Your task to perform on an android device: Add "duracell triple a" to the cart on target.com Image 0: 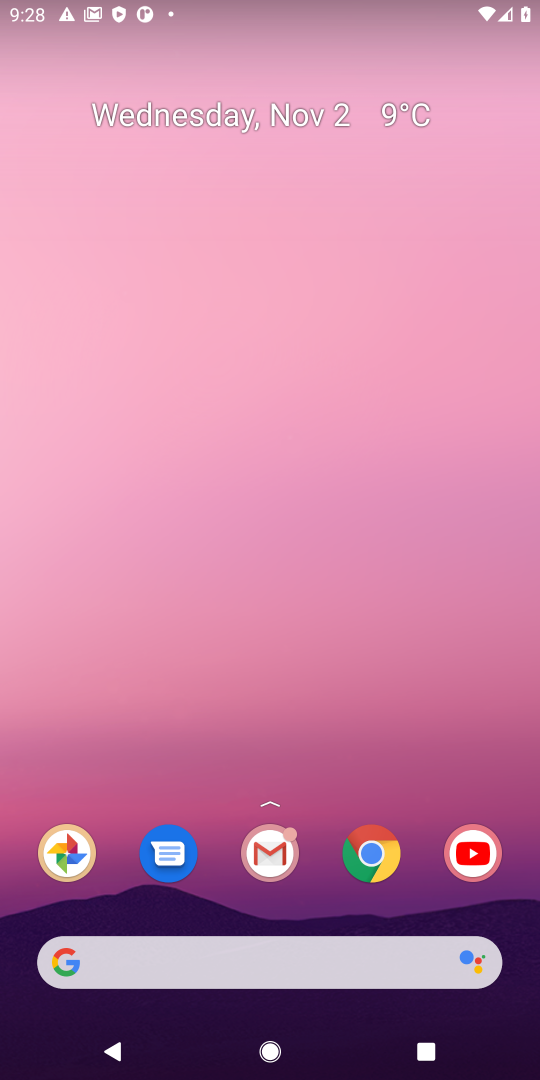
Step 0: click (379, 850)
Your task to perform on an android device: Add "duracell triple a" to the cart on target.com Image 1: 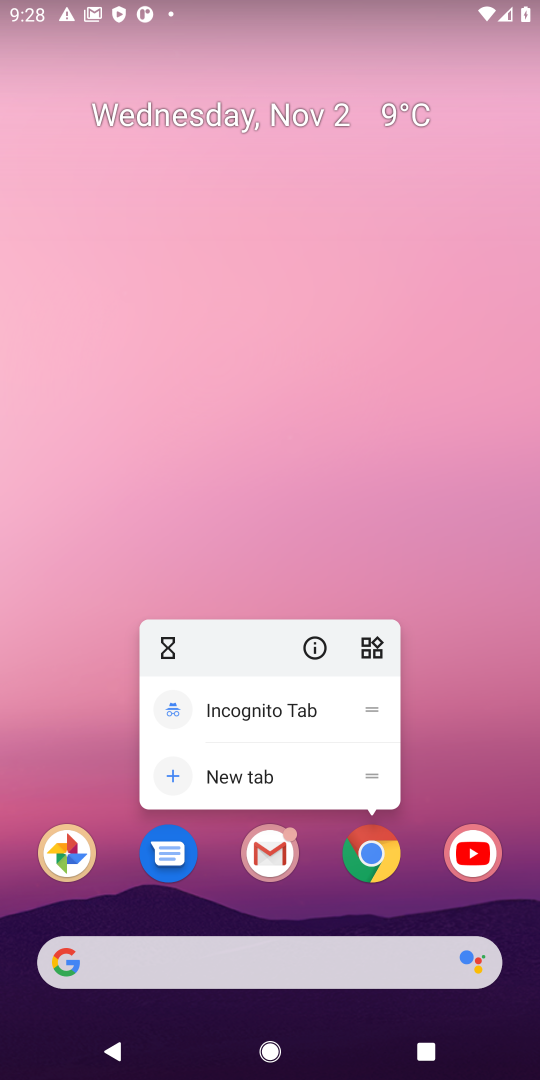
Step 1: click (367, 857)
Your task to perform on an android device: Add "duracell triple a" to the cart on target.com Image 2: 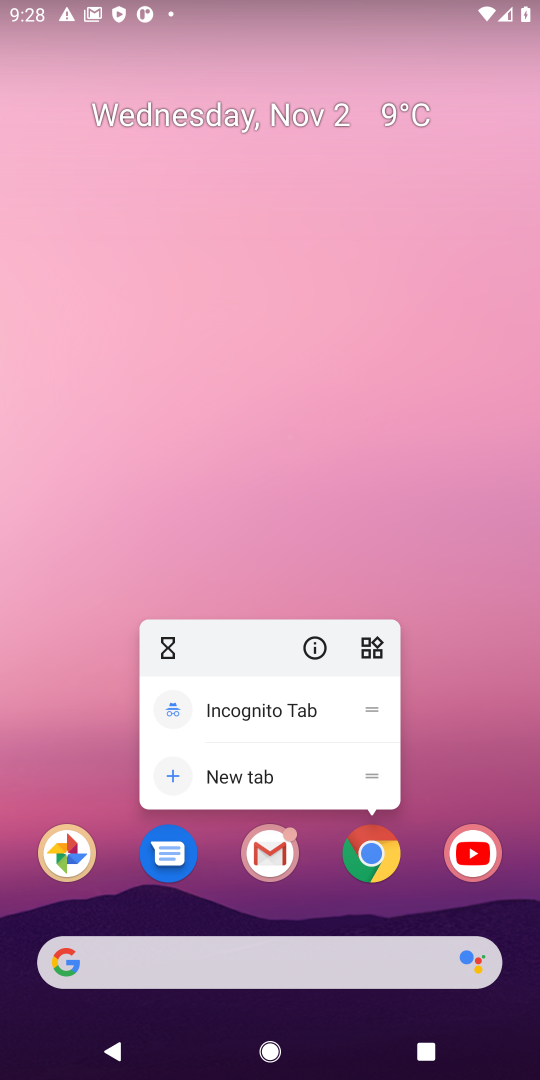
Step 2: click (369, 855)
Your task to perform on an android device: Add "duracell triple a" to the cart on target.com Image 3: 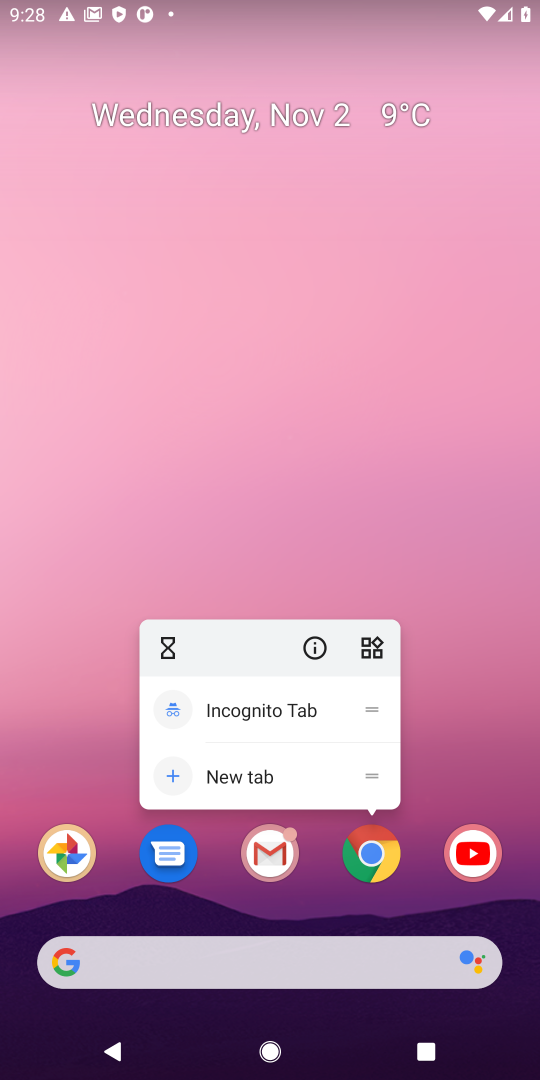
Step 3: click (369, 855)
Your task to perform on an android device: Add "duracell triple a" to the cart on target.com Image 4: 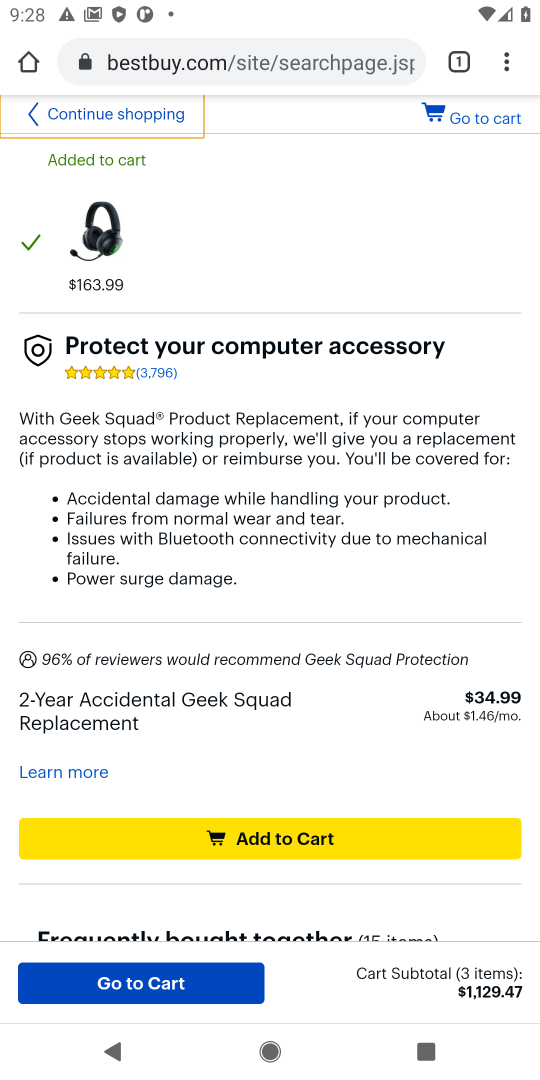
Step 4: click (307, 64)
Your task to perform on an android device: Add "duracell triple a" to the cart on target.com Image 5: 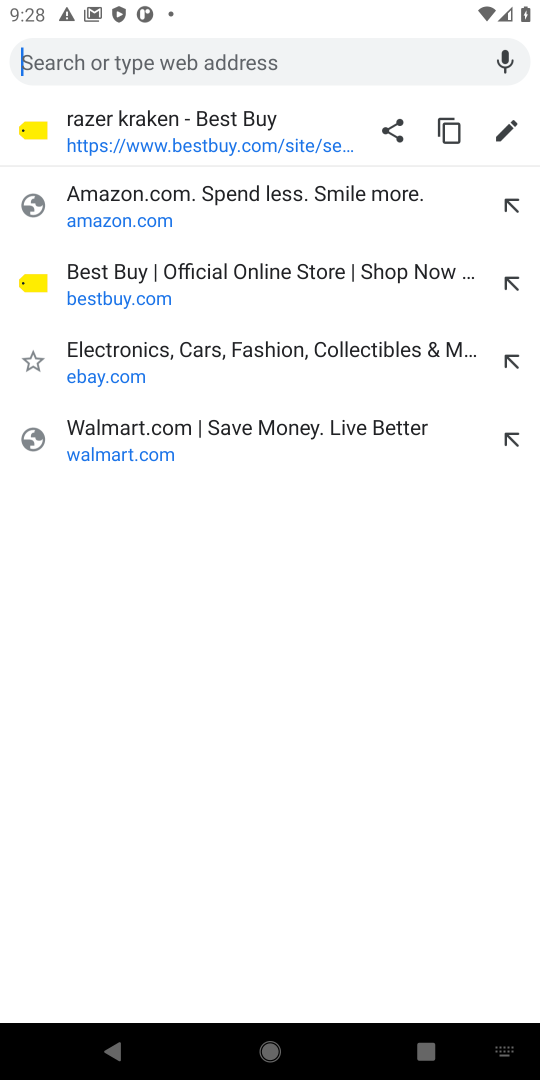
Step 5: type "target.com"
Your task to perform on an android device: Add "duracell triple a" to the cart on target.com Image 6: 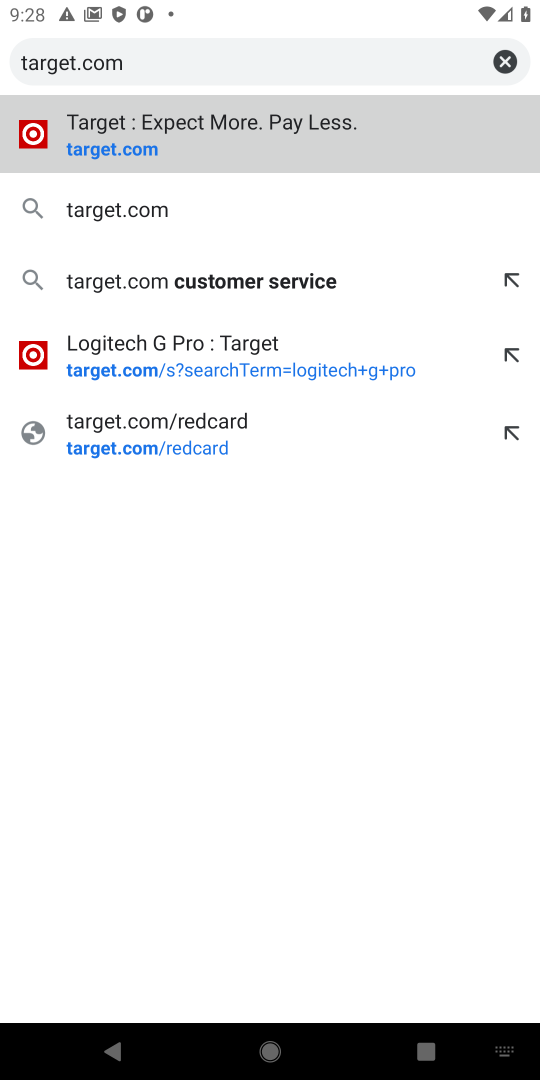
Step 6: press enter
Your task to perform on an android device: Add "duracell triple a" to the cart on target.com Image 7: 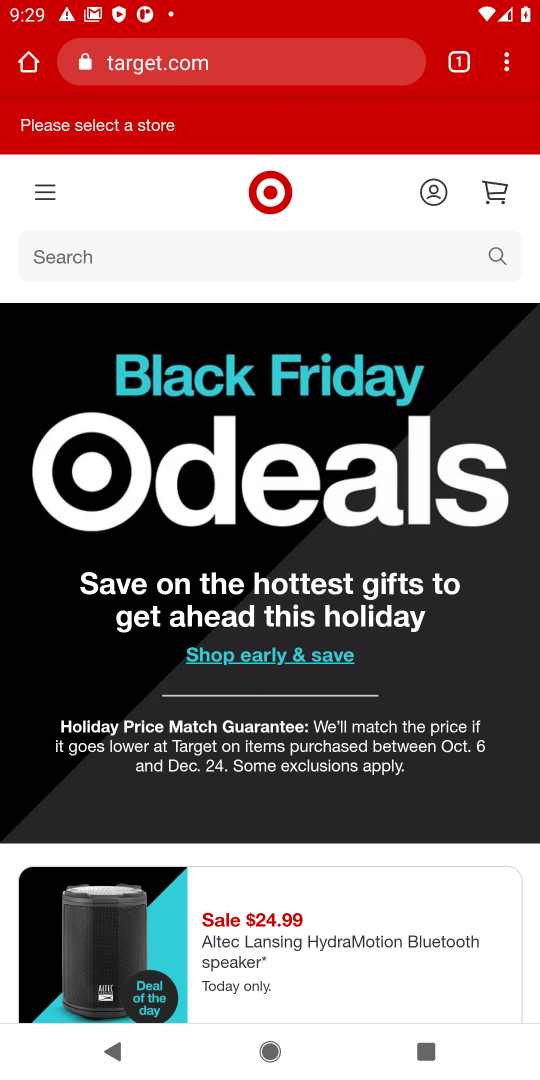
Step 7: click (102, 251)
Your task to perform on an android device: Add "duracell triple a" to the cart on target.com Image 8: 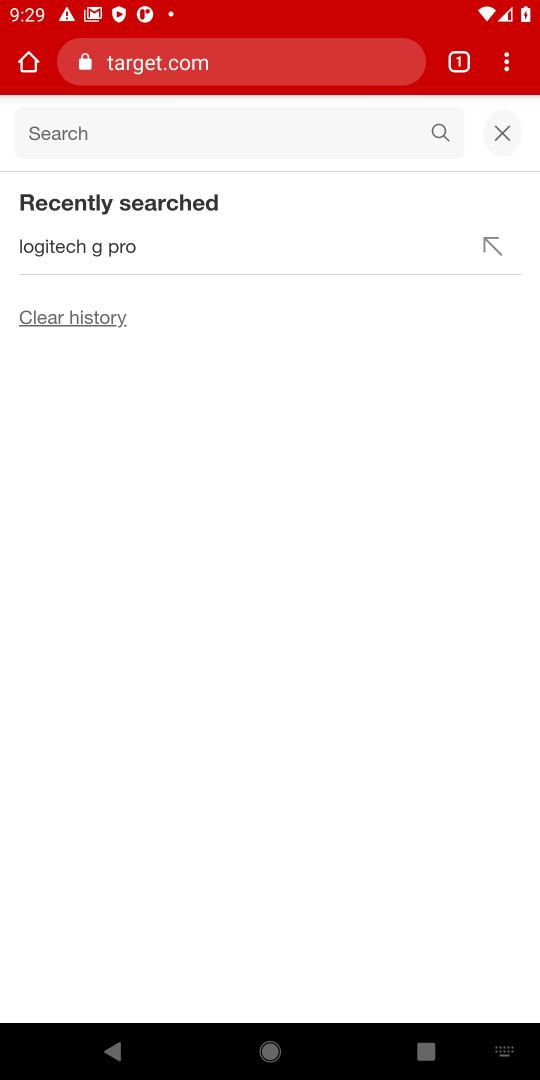
Step 8: type "duracell triple a"
Your task to perform on an android device: Add "duracell triple a" to the cart on target.com Image 9: 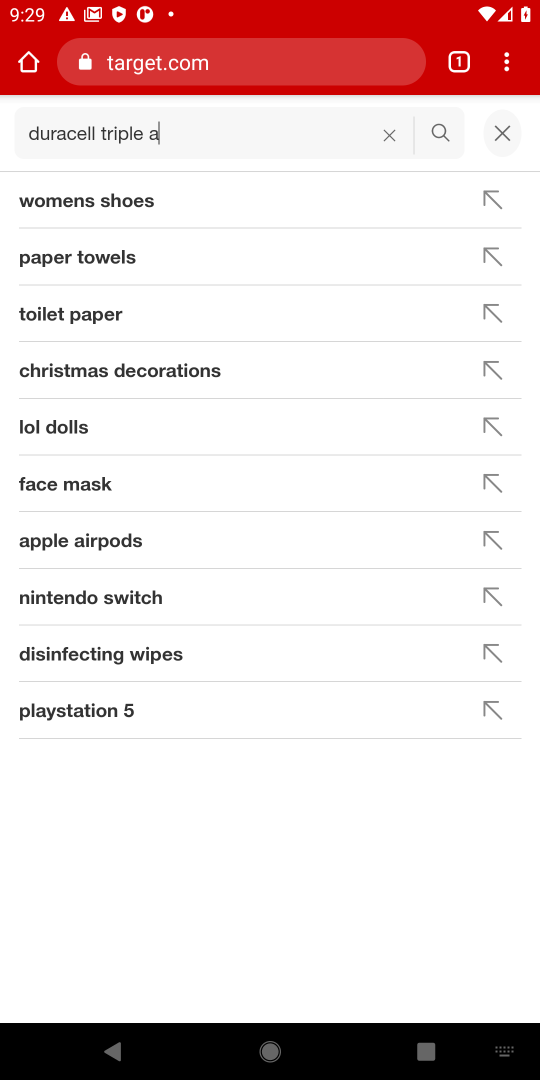
Step 9: press enter
Your task to perform on an android device: Add "duracell triple a" to the cart on target.com Image 10: 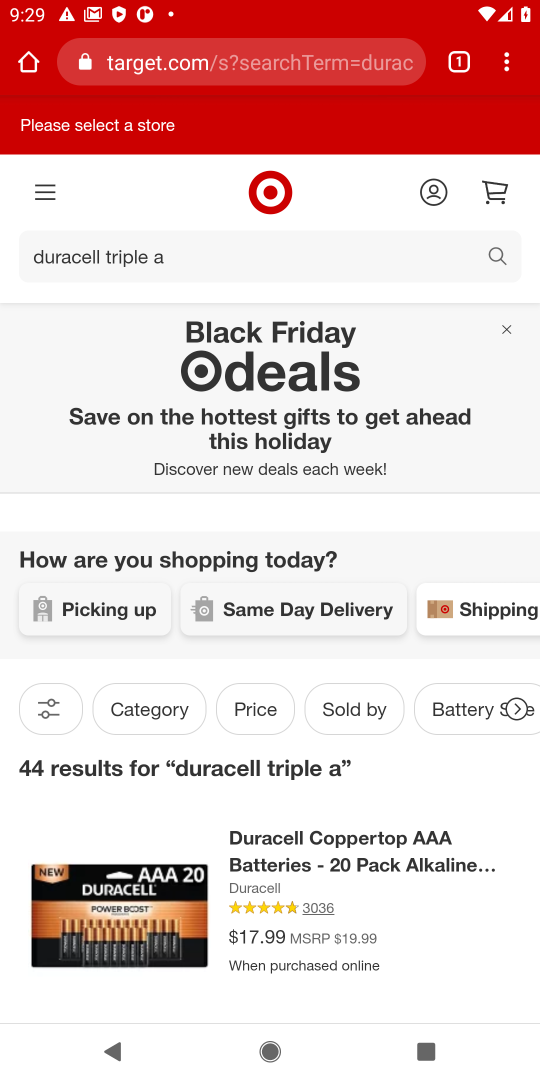
Step 10: drag from (293, 885) to (420, 603)
Your task to perform on an android device: Add "duracell triple a" to the cart on target.com Image 11: 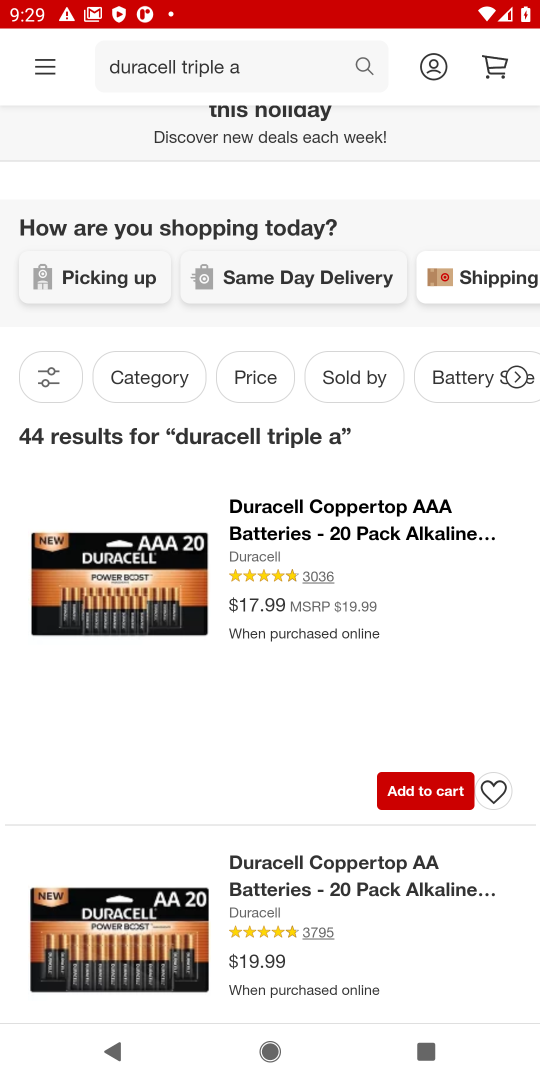
Step 11: click (359, 533)
Your task to perform on an android device: Add "duracell triple a" to the cart on target.com Image 12: 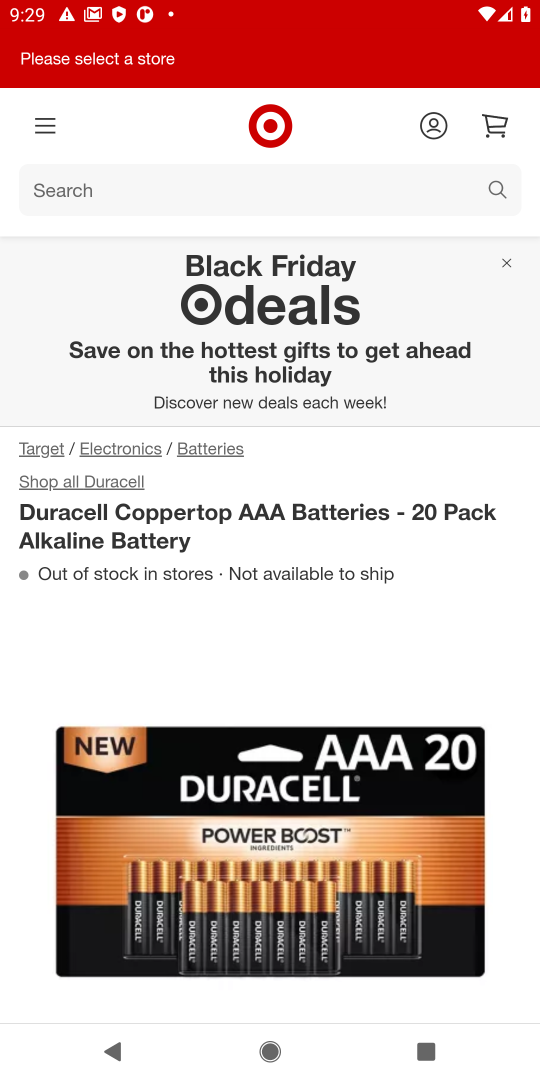
Step 12: drag from (185, 924) to (322, 467)
Your task to perform on an android device: Add "duracell triple a" to the cart on target.com Image 13: 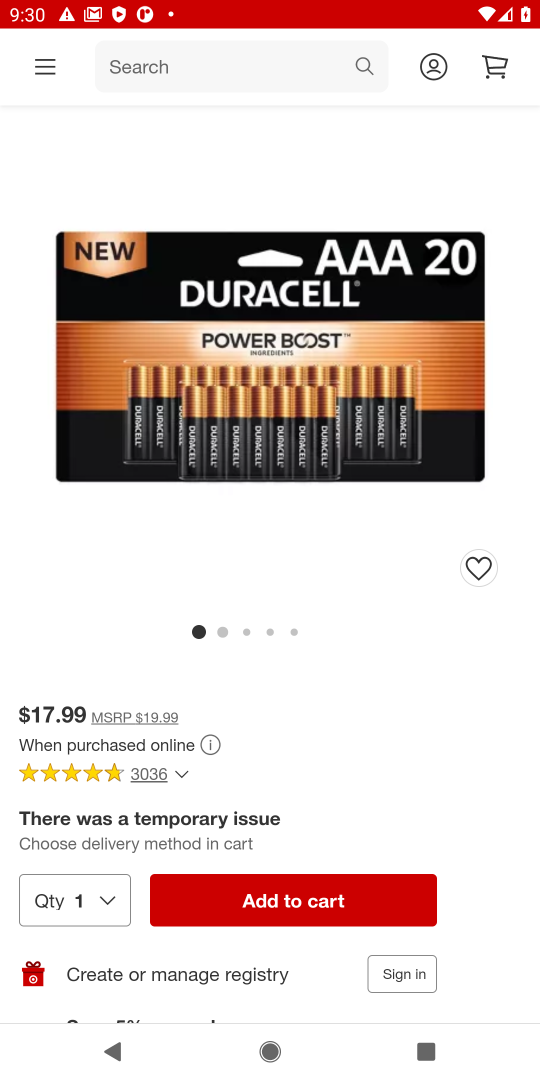
Step 13: click (280, 910)
Your task to perform on an android device: Add "duracell triple a" to the cart on target.com Image 14: 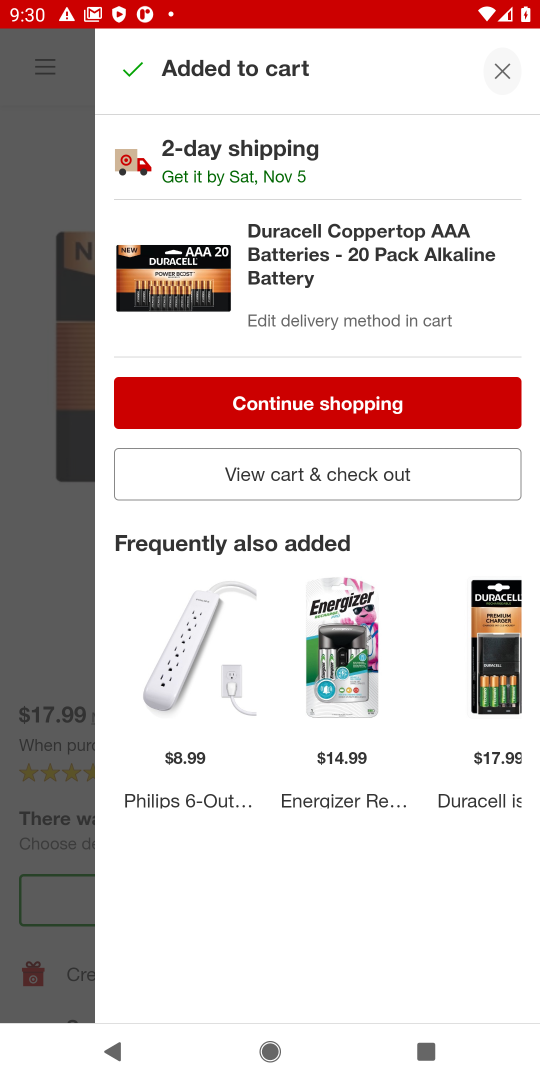
Step 14: task complete